Your task to perform on an android device: change the upload size in google photos Image 0: 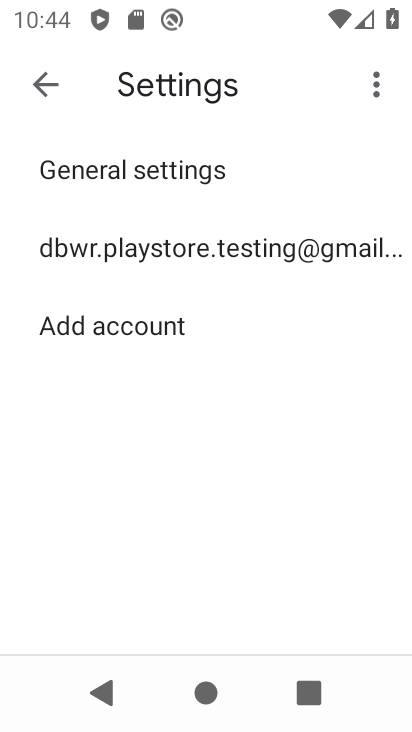
Step 0: click (412, 297)
Your task to perform on an android device: change the upload size in google photos Image 1: 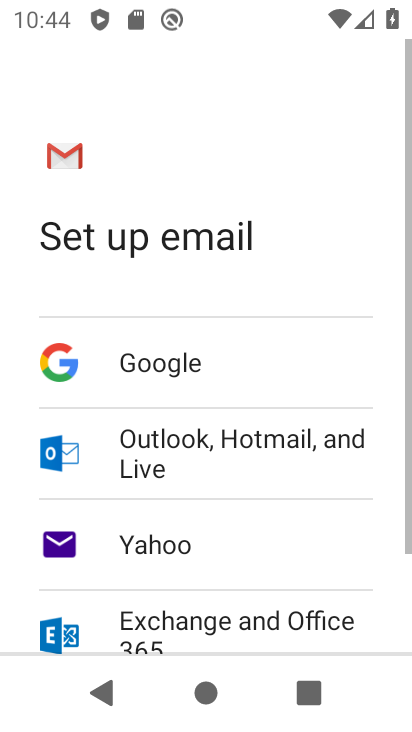
Step 1: press home button
Your task to perform on an android device: change the upload size in google photos Image 2: 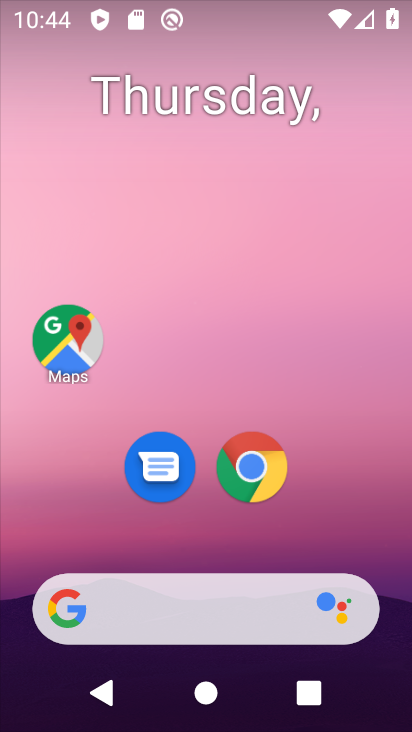
Step 2: drag from (363, 565) to (376, 12)
Your task to perform on an android device: change the upload size in google photos Image 3: 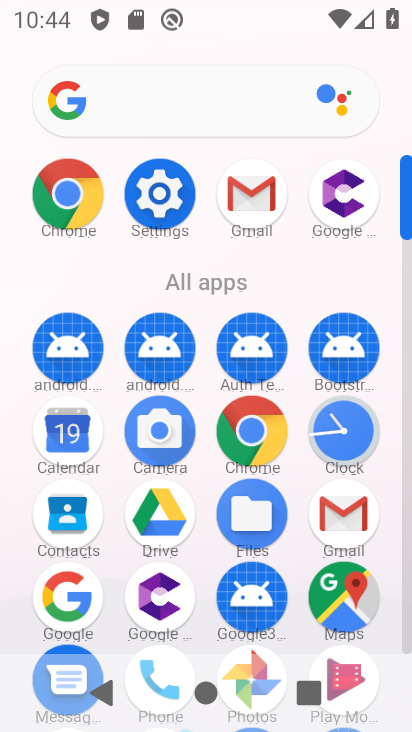
Step 3: drag from (400, 527) to (410, 492)
Your task to perform on an android device: change the upload size in google photos Image 4: 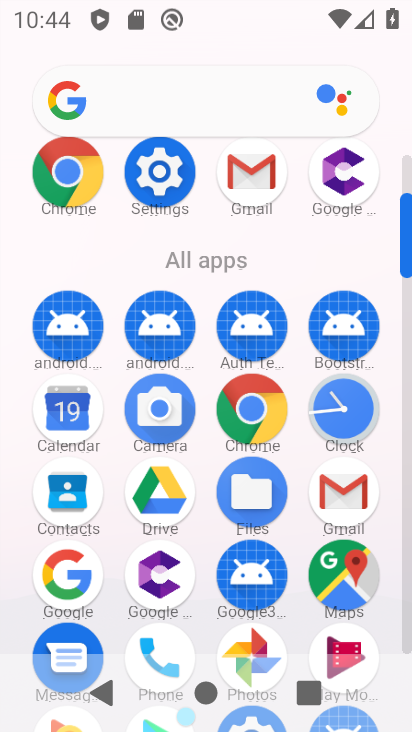
Step 4: click (256, 638)
Your task to perform on an android device: change the upload size in google photos Image 5: 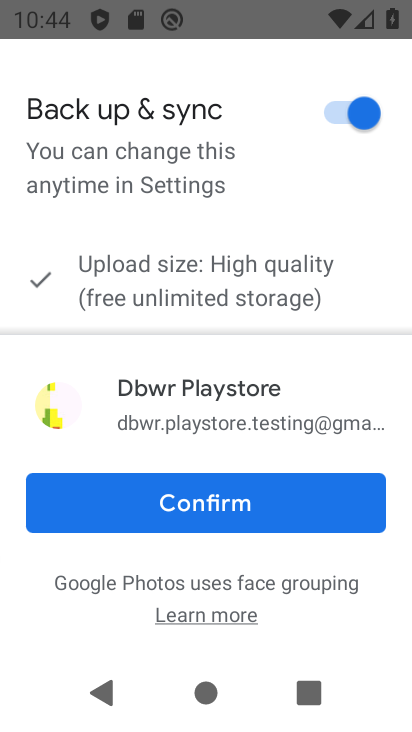
Step 5: click (74, 95)
Your task to perform on an android device: change the upload size in google photos Image 6: 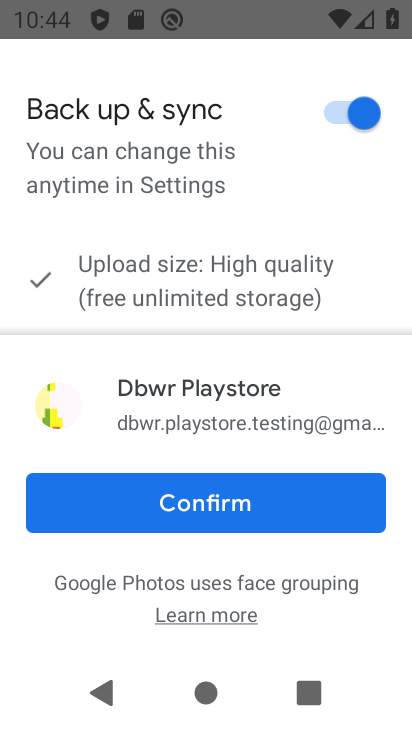
Step 6: click (189, 499)
Your task to perform on an android device: change the upload size in google photos Image 7: 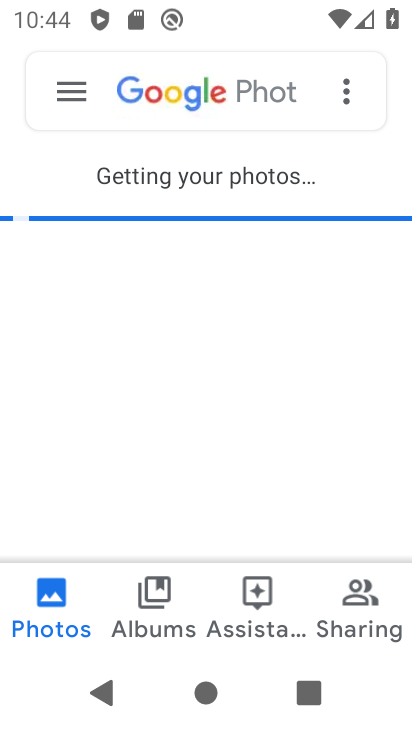
Step 7: click (63, 84)
Your task to perform on an android device: change the upload size in google photos Image 8: 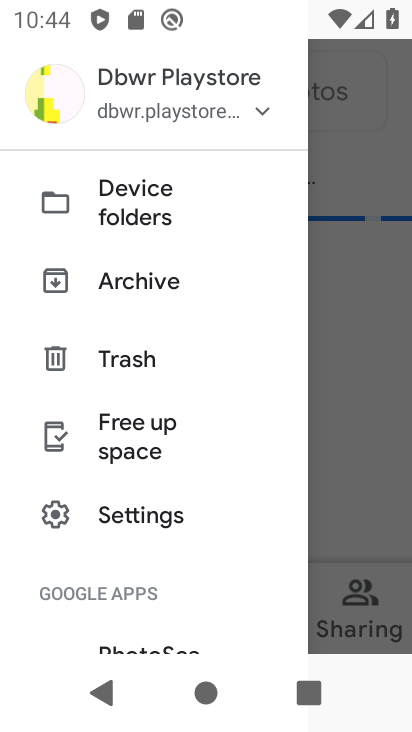
Step 8: click (138, 518)
Your task to perform on an android device: change the upload size in google photos Image 9: 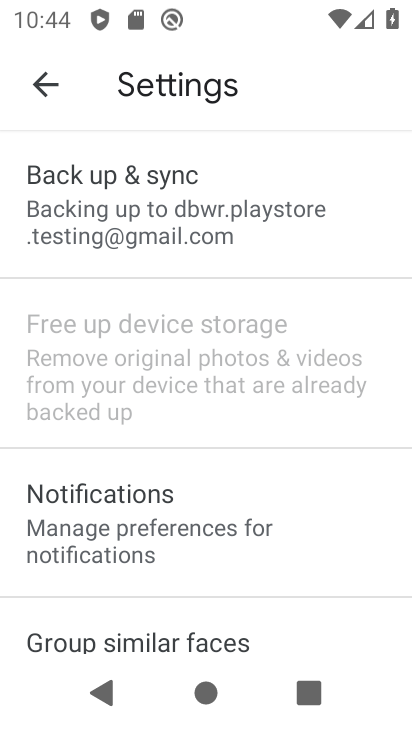
Step 9: click (107, 234)
Your task to perform on an android device: change the upload size in google photos Image 10: 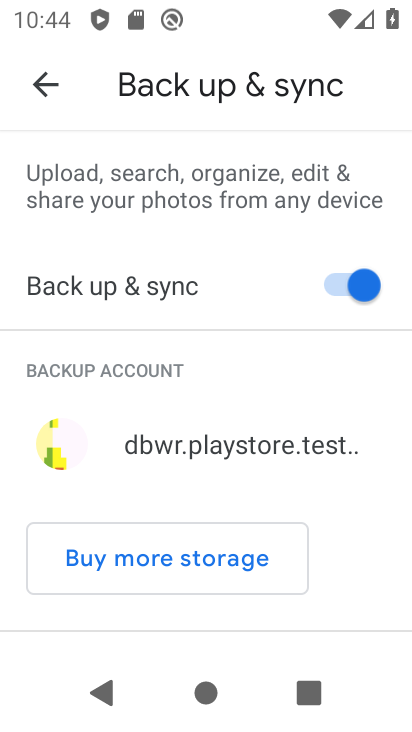
Step 10: drag from (172, 475) to (181, 232)
Your task to perform on an android device: change the upload size in google photos Image 11: 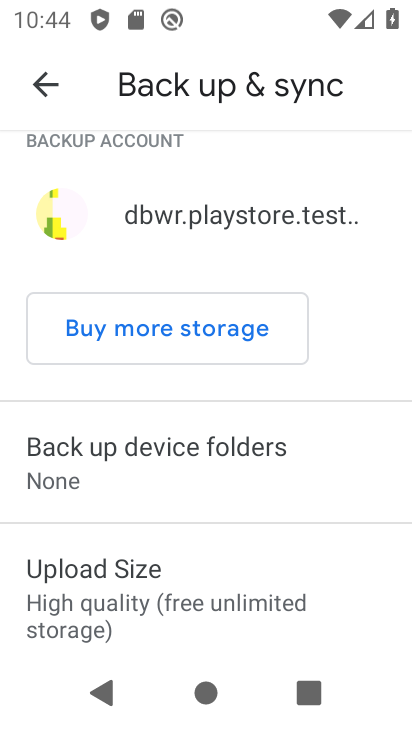
Step 11: click (125, 584)
Your task to perform on an android device: change the upload size in google photos Image 12: 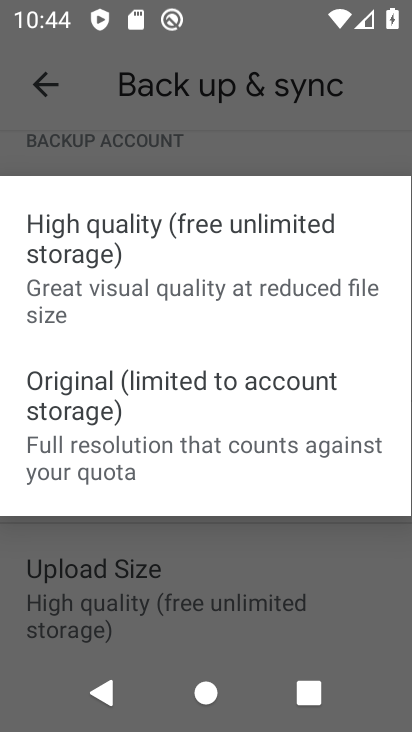
Step 12: click (61, 406)
Your task to perform on an android device: change the upload size in google photos Image 13: 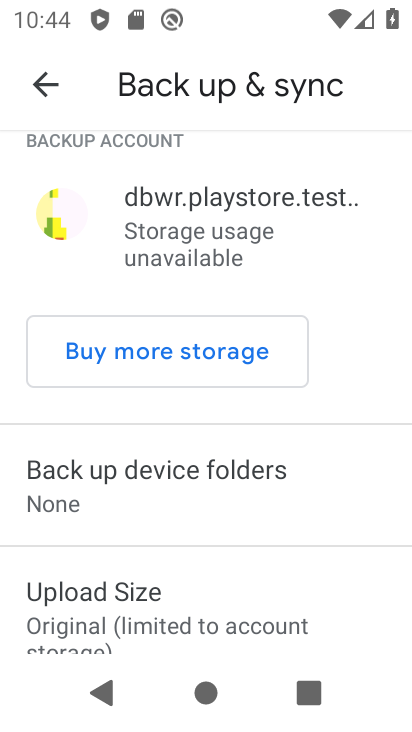
Step 13: task complete